Your task to perform on an android device: Do I have any events this weekend? Image 0: 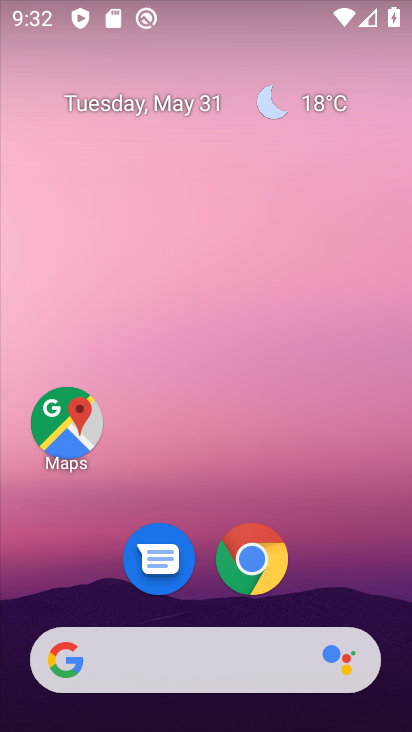
Step 0: drag from (348, 638) to (361, 140)
Your task to perform on an android device: Do I have any events this weekend? Image 1: 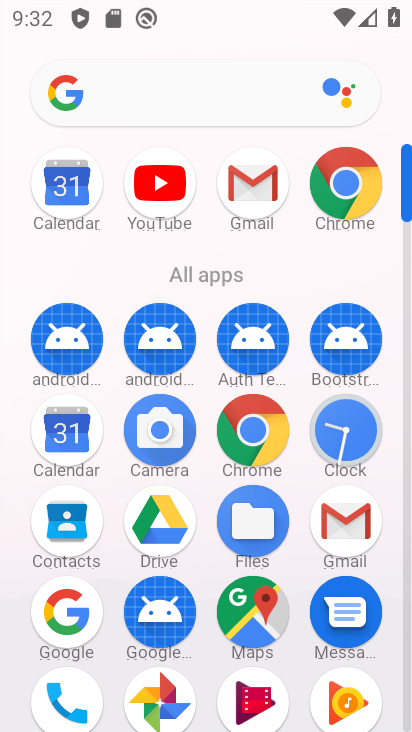
Step 1: click (71, 448)
Your task to perform on an android device: Do I have any events this weekend? Image 2: 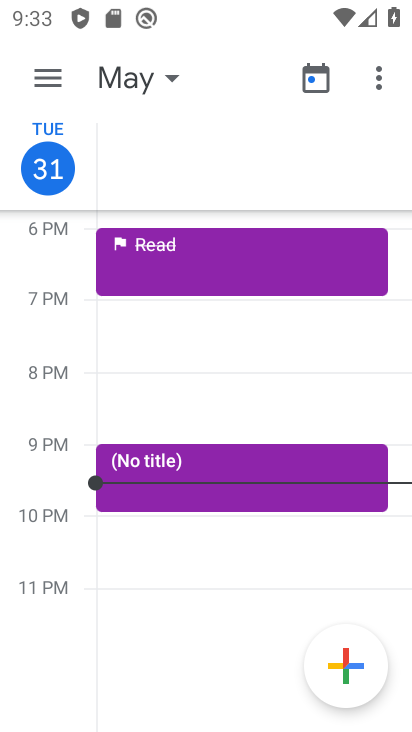
Step 2: click (51, 85)
Your task to perform on an android device: Do I have any events this weekend? Image 3: 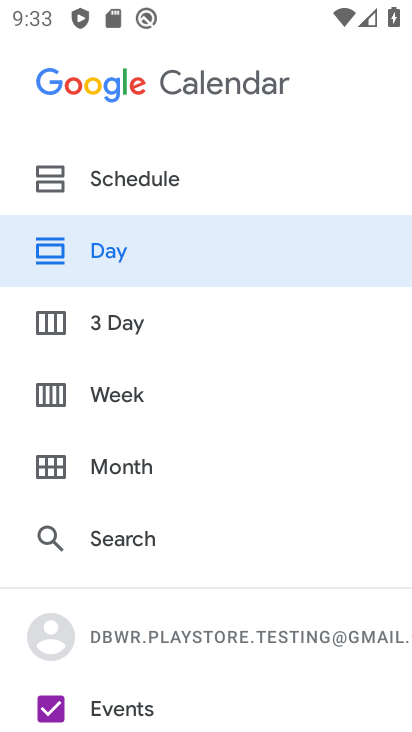
Step 3: click (92, 341)
Your task to perform on an android device: Do I have any events this weekend? Image 4: 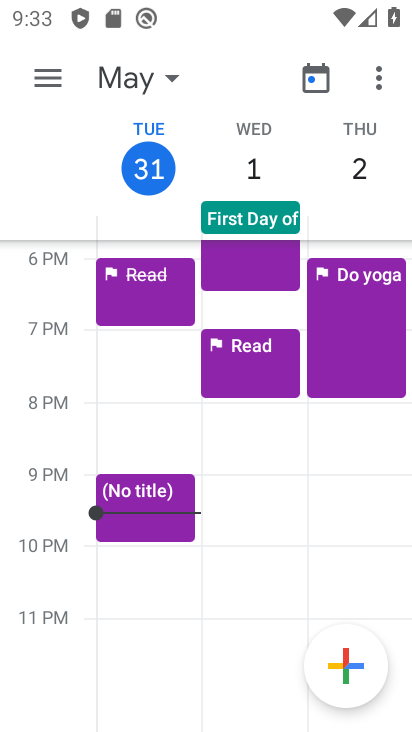
Step 4: click (137, 71)
Your task to perform on an android device: Do I have any events this weekend? Image 5: 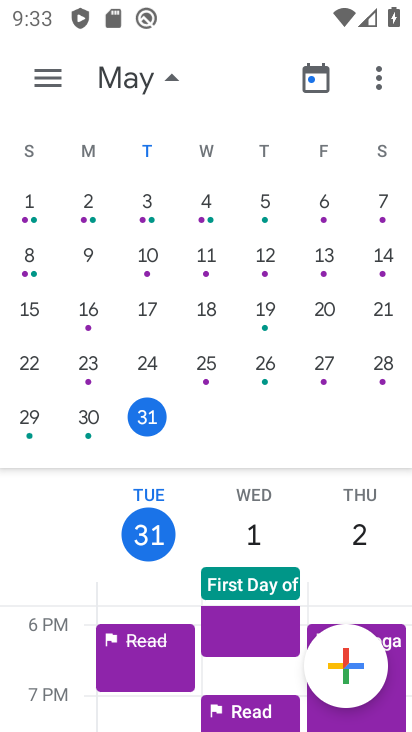
Step 5: drag from (312, 324) to (3, 271)
Your task to perform on an android device: Do I have any events this weekend? Image 6: 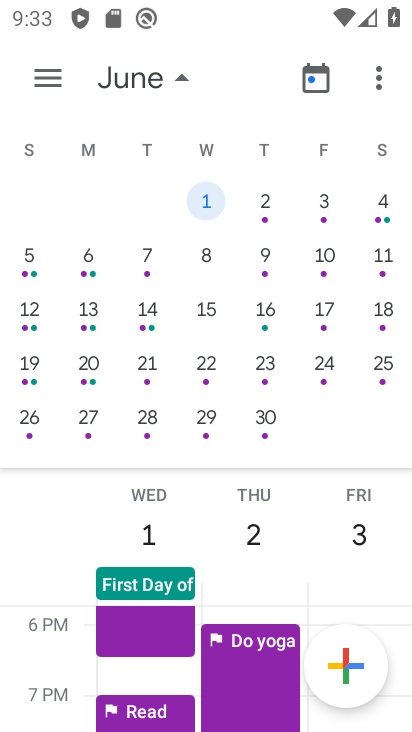
Step 6: click (325, 199)
Your task to perform on an android device: Do I have any events this weekend? Image 7: 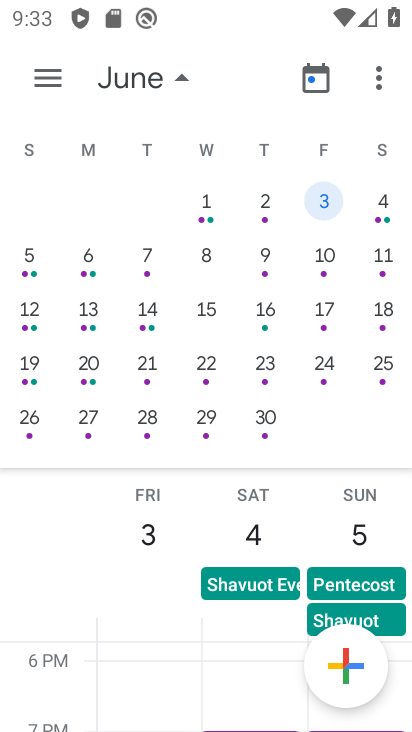
Step 7: task complete